Your task to perform on an android device: Search for pizza restaurants on Maps Image 0: 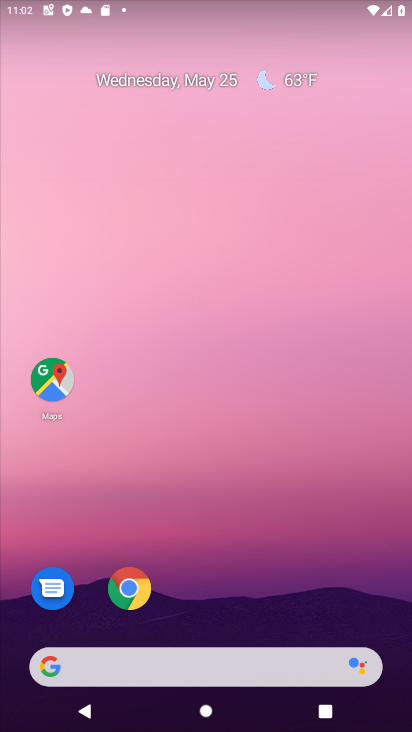
Step 0: click (43, 378)
Your task to perform on an android device: Search for pizza restaurants on Maps Image 1: 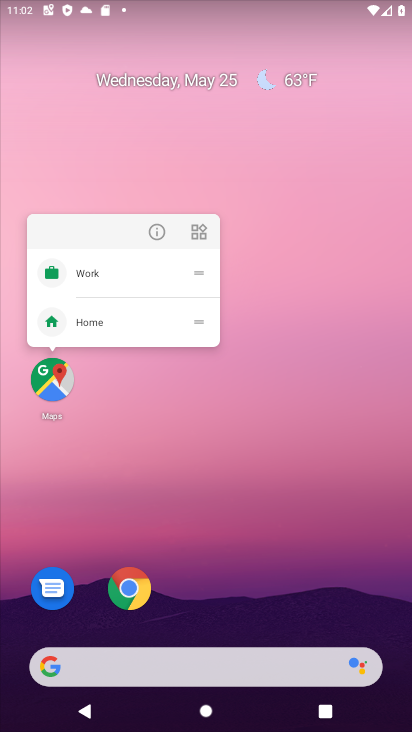
Step 1: click (56, 379)
Your task to perform on an android device: Search for pizza restaurants on Maps Image 2: 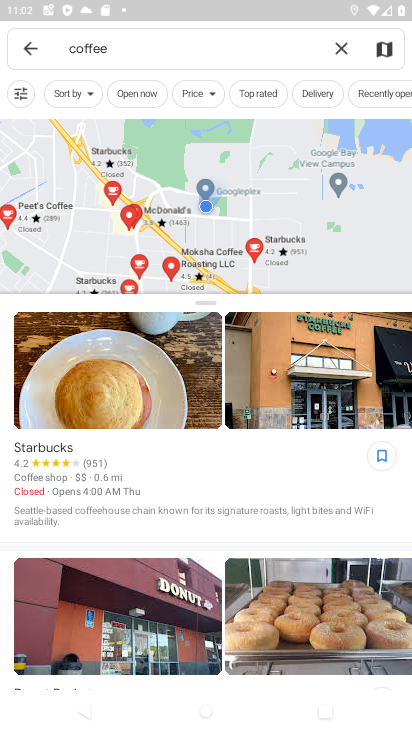
Step 2: click (328, 48)
Your task to perform on an android device: Search for pizza restaurants on Maps Image 3: 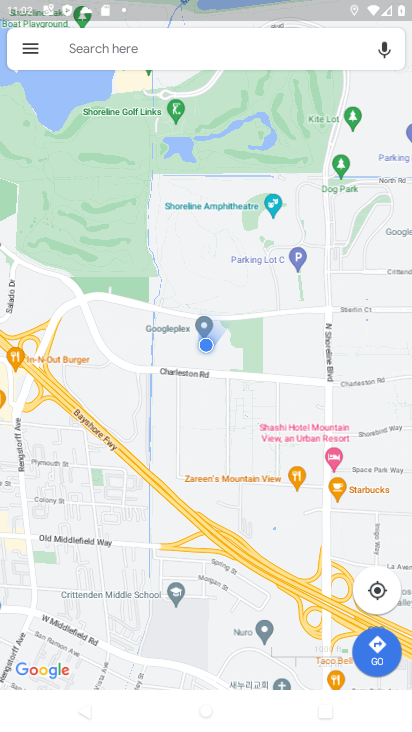
Step 3: click (312, 43)
Your task to perform on an android device: Search for pizza restaurants on Maps Image 4: 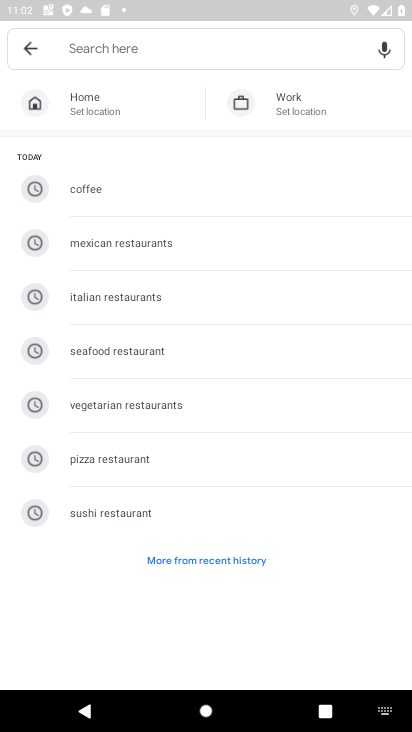
Step 4: click (162, 463)
Your task to perform on an android device: Search for pizza restaurants on Maps Image 5: 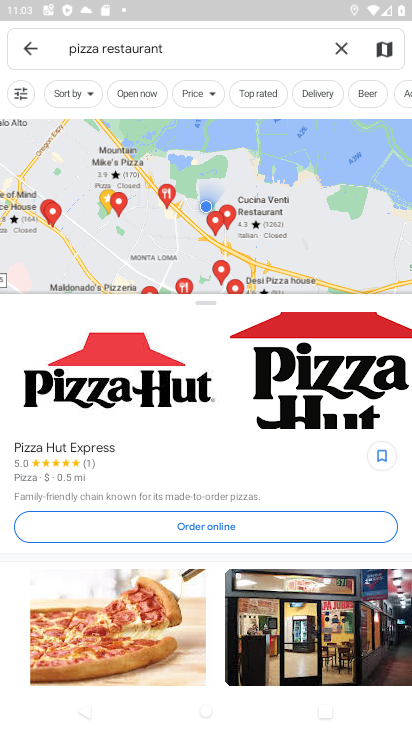
Step 5: task complete